Your task to perform on an android device: Open the map Image 0: 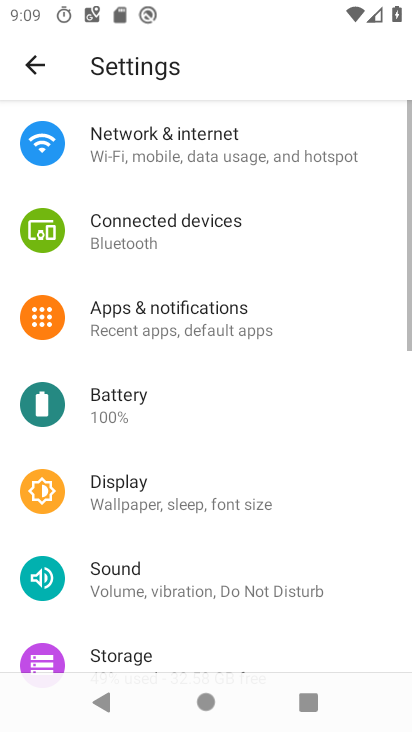
Step 0: press home button
Your task to perform on an android device: Open the map Image 1: 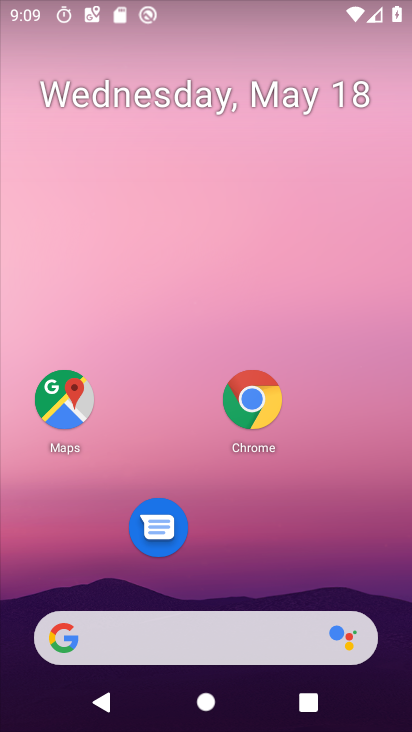
Step 1: drag from (247, 569) to (174, 142)
Your task to perform on an android device: Open the map Image 2: 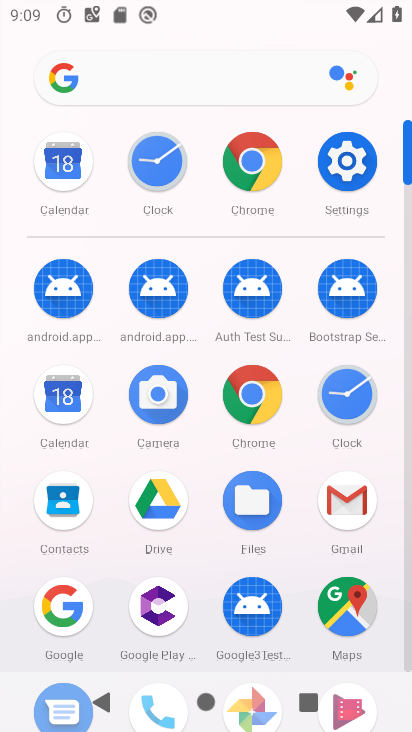
Step 2: click (364, 609)
Your task to perform on an android device: Open the map Image 3: 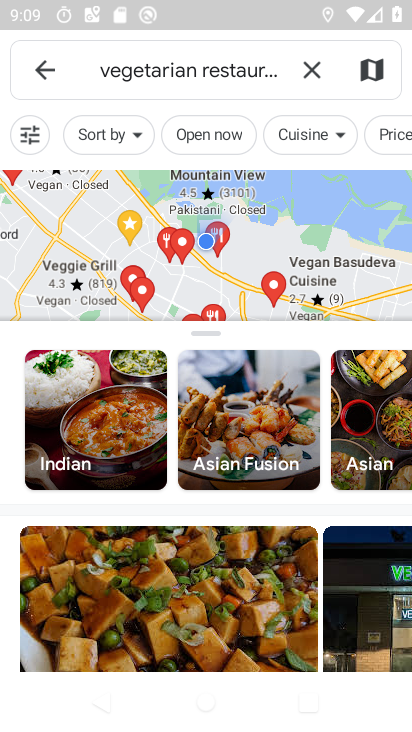
Step 3: task complete